Your task to perform on an android device: install app "Adobe Acrobat Reader" Image 0: 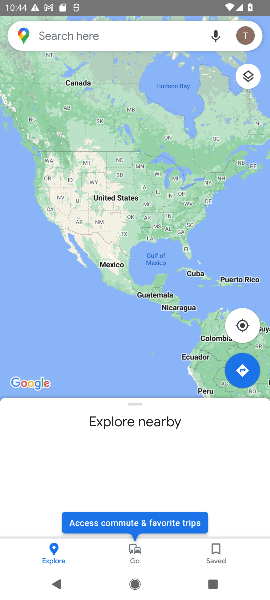
Step 0: press home button
Your task to perform on an android device: install app "Adobe Acrobat Reader" Image 1: 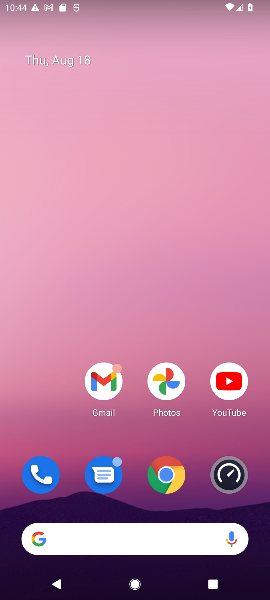
Step 1: drag from (128, 506) to (261, 279)
Your task to perform on an android device: install app "Adobe Acrobat Reader" Image 2: 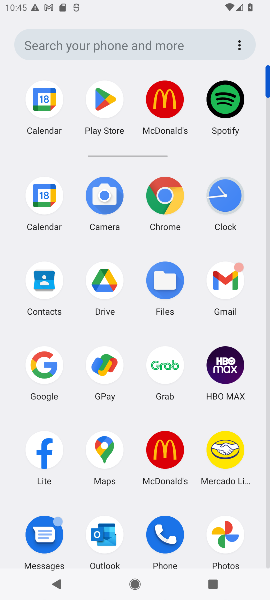
Step 2: click (105, 101)
Your task to perform on an android device: install app "Adobe Acrobat Reader" Image 3: 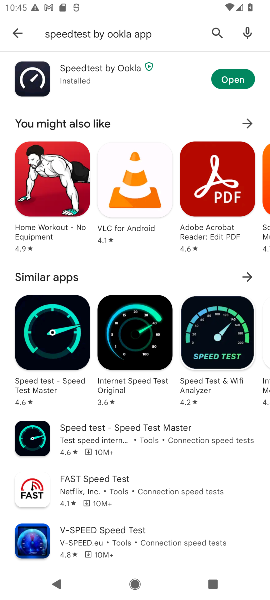
Step 3: click (7, 23)
Your task to perform on an android device: install app "Adobe Acrobat Reader" Image 4: 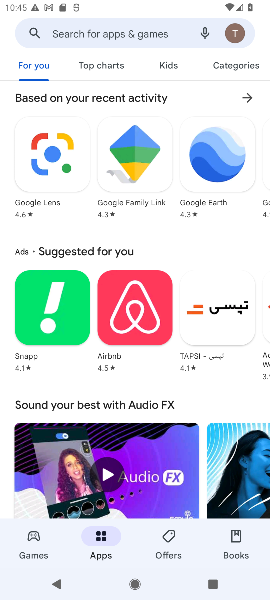
Step 4: click (128, 36)
Your task to perform on an android device: install app "Adobe Acrobat Reader" Image 5: 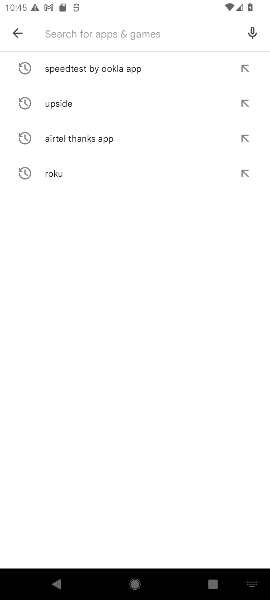
Step 5: type "Adobe Acrobat Reader"
Your task to perform on an android device: install app "Adobe Acrobat Reader" Image 6: 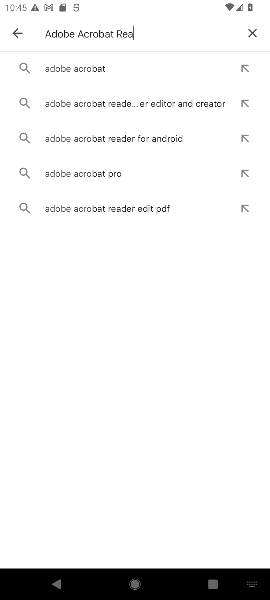
Step 6: type ""
Your task to perform on an android device: install app "Adobe Acrobat Reader" Image 7: 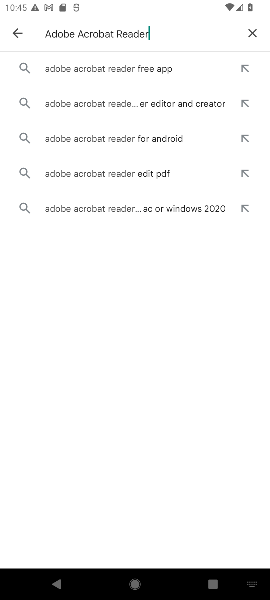
Step 7: click (122, 70)
Your task to perform on an android device: install app "Adobe Acrobat Reader" Image 8: 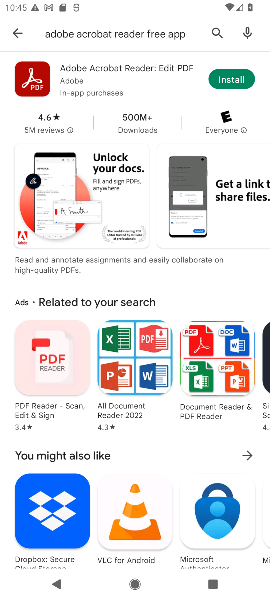
Step 8: click (235, 71)
Your task to perform on an android device: install app "Adobe Acrobat Reader" Image 9: 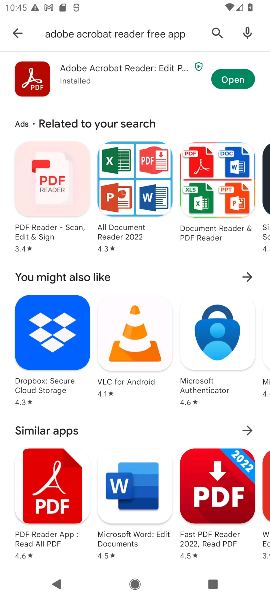
Step 9: task complete